Your task to perform on an android device: turn on airplane mode Image 0: 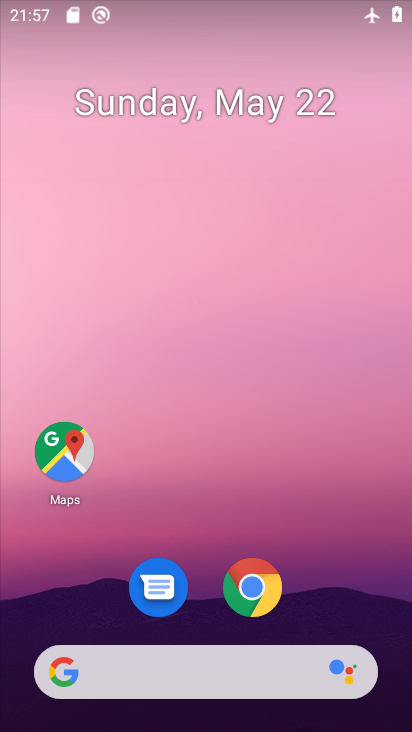
Step 0: drag from (231, 460) to (199, 1)
Your task to perform on an android device: turn on airplane mode Image 1: 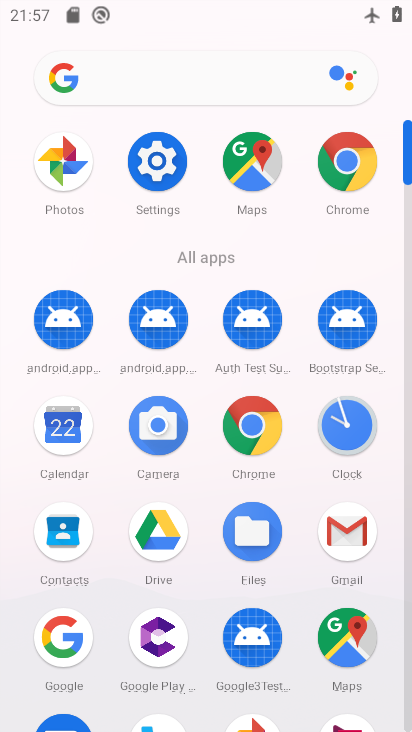
Step 1: click (159, 151)
Your task to perform on an android device: turn on airplane mode Image 2: 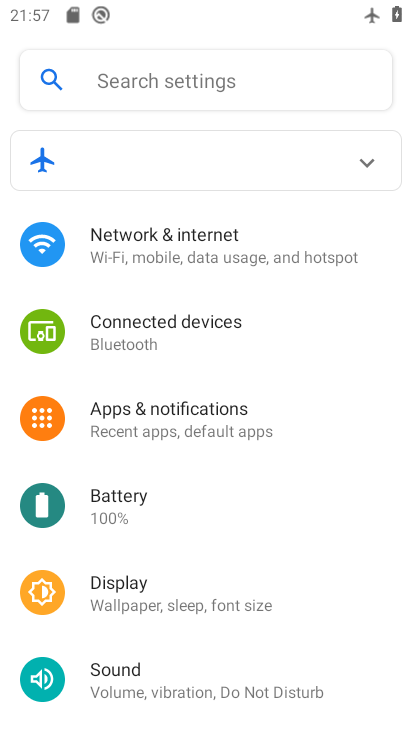
Step 2: click (201, 247)
Your task to perform on an android device: turn on airplane mode Image 3: 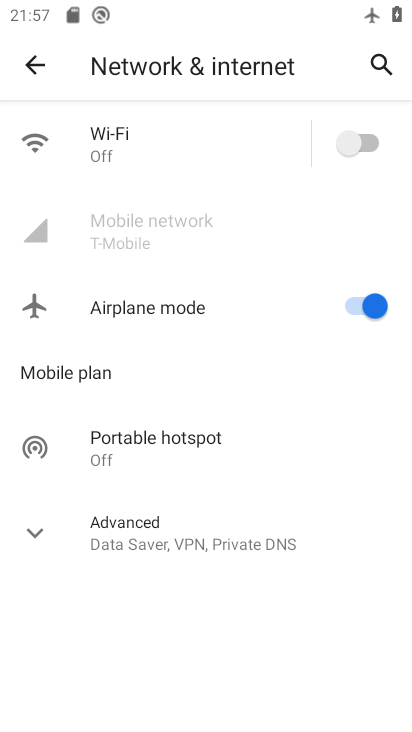
Step 3: task complete